Your task to perform on an android device: Open notification settings Image 0: 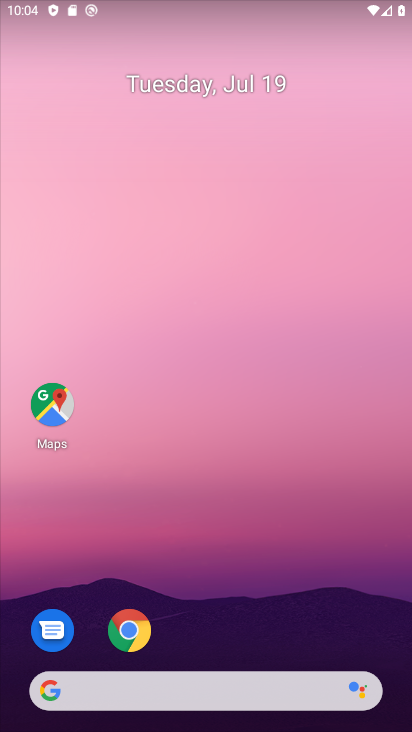
Step 0: drag from (170, 601) to (153, 351)
Your task to perform on an android device: Open notification settings Image 1: 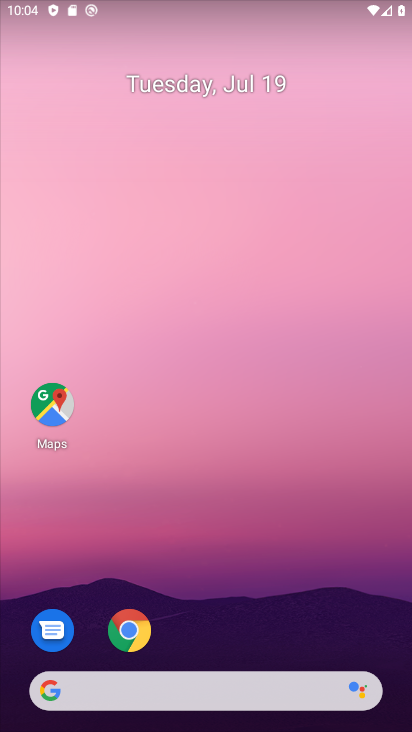
Step 1: drag from (265, 672) to (224, 119)
Your task to perform on an android device: Open notification settings Image 2: 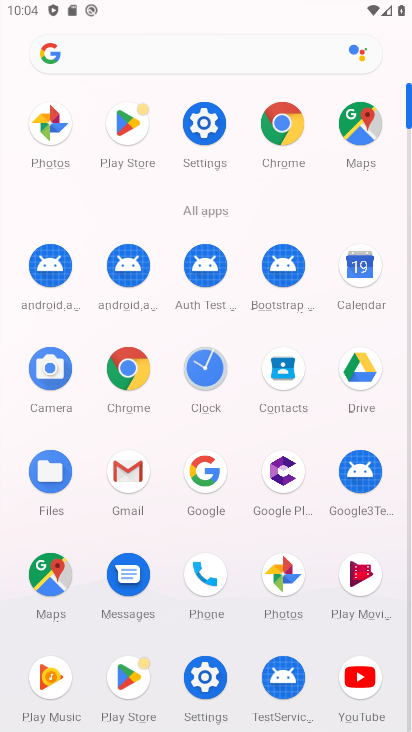
Step 2: click (196, 125)
Your task to perform on an android device: Open notification settings Image 3: 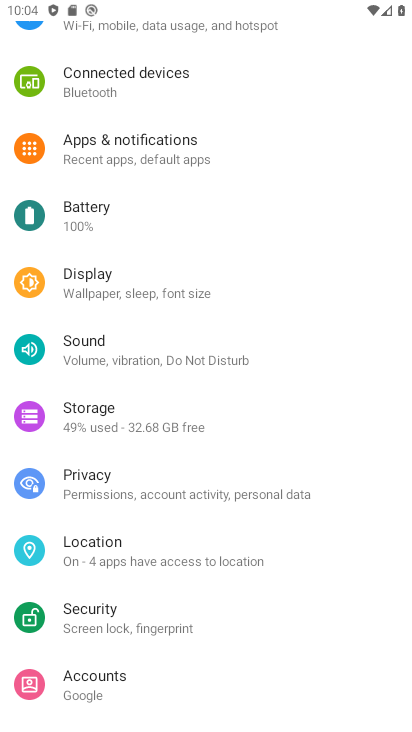
Step 3: drag from (94, 27) to (153, 469)
Your task to perform on an android device: Open notification settings Image 4: 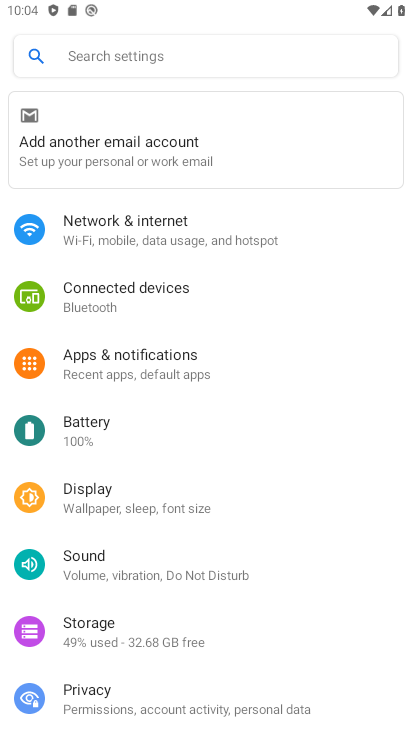
Step 4: click (151, 362)
Your task to perform on an android device: Open notification settings Image 5: 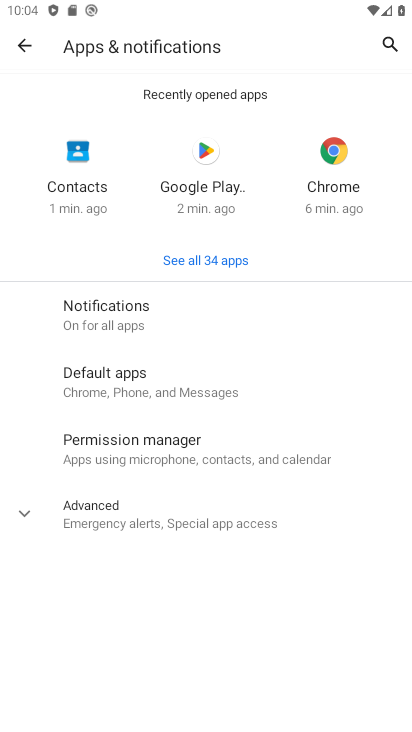
Step 5: click (166, 526)
Your task to perform on an android device: Open notification settings Image 6: 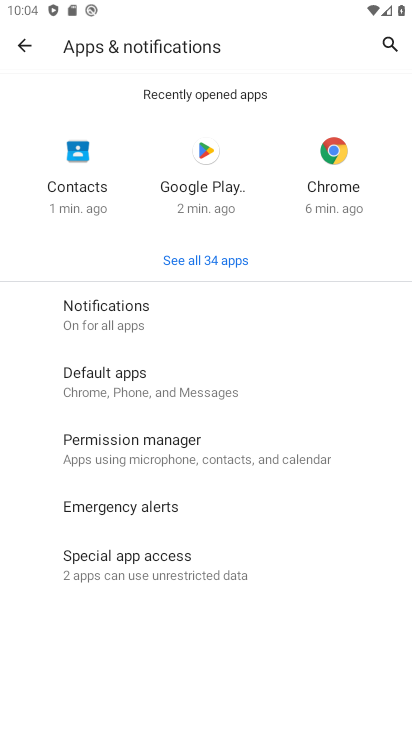
Step 6: task complete